Your task to perform on an android device: toggle pop-ups in chrome Image 0: 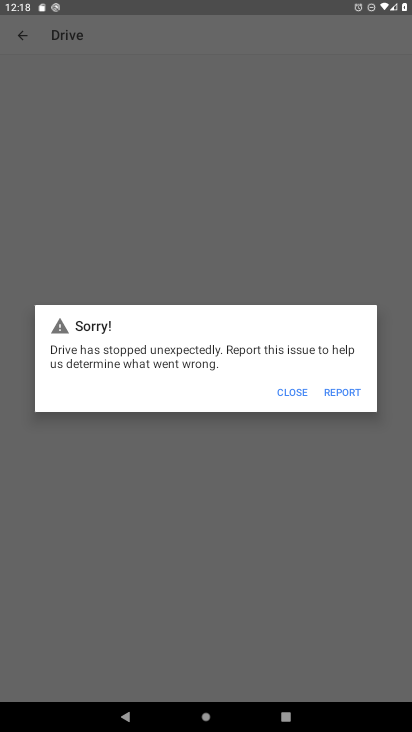
Step 0: press home button
Your task to perform on an android device: toggle pop-ups in chrome Image 1: 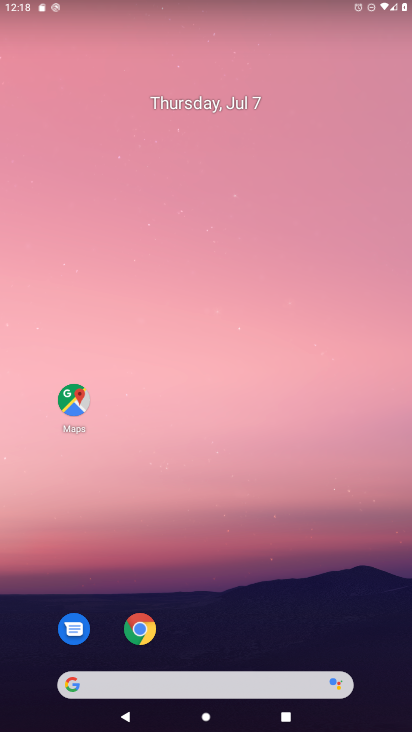
Step 1: click (146, 641)
Your task to perform on an android device: toggle pop-ups in chrome Image 2: 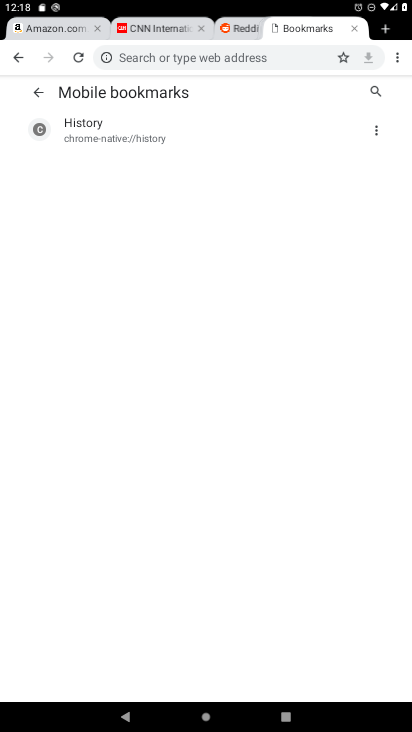
Step 2: click (398, 60)
Your task to perform on an android device: toggle pop-ups in chrome Image 3: 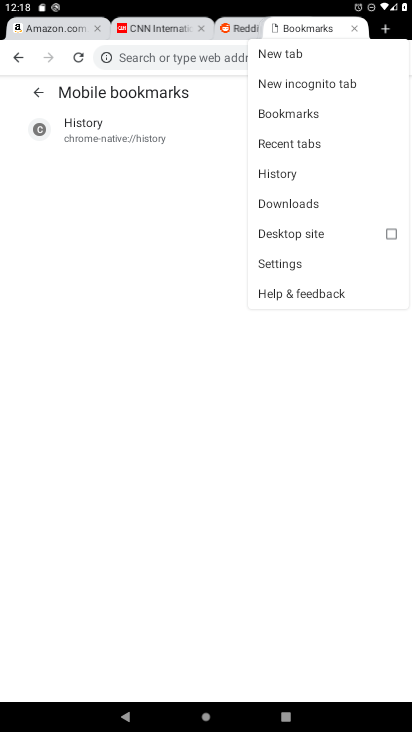
Step 3: click (302, 259)
Your task to perform on an android device: toggle pop-ups in chrome Image 4: 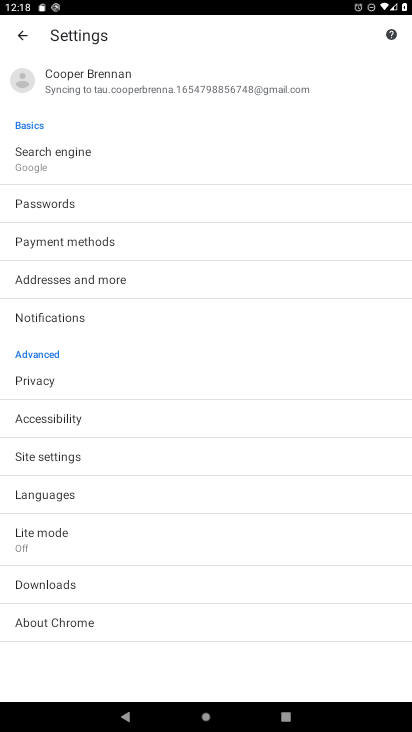
Step 4: click (94, 469)
Your task to perform on an android device: toggle pop-ups in chrome Image 5: 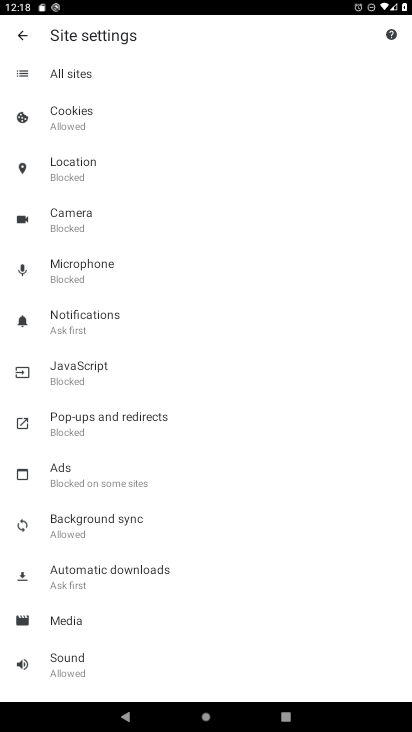
Step 5: click (149, 433)
Your task to perform on an android device: toggle pop-ups in chrome Image 6: 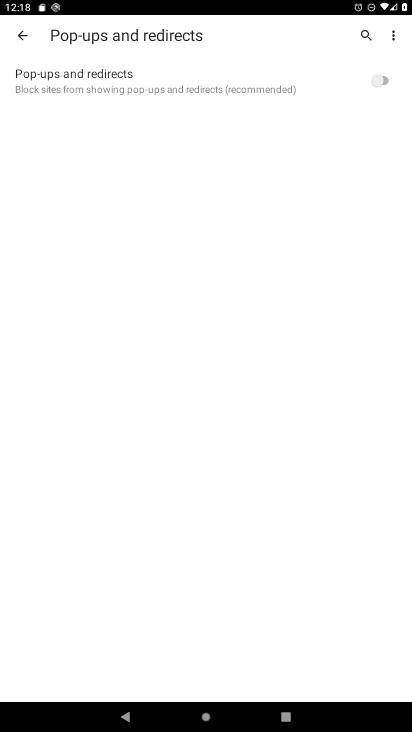
Step 6: click (382, 83)
Your task to perform on an android device: toggle pop-ups in chrome Image 7: 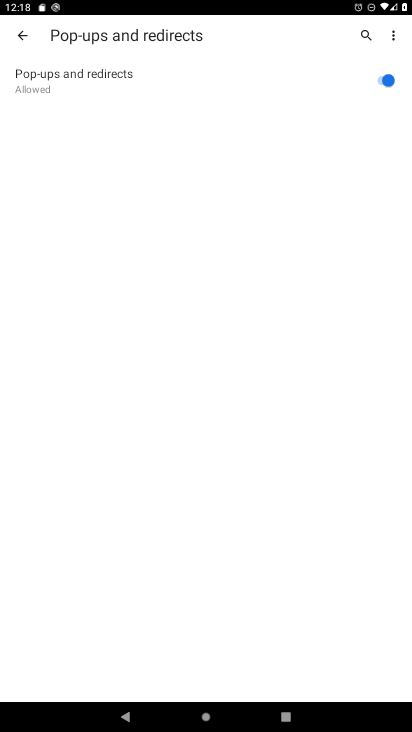
Step 7: task complete